Your task to perform on an android device: snooze an email in the gmail app Image 0: 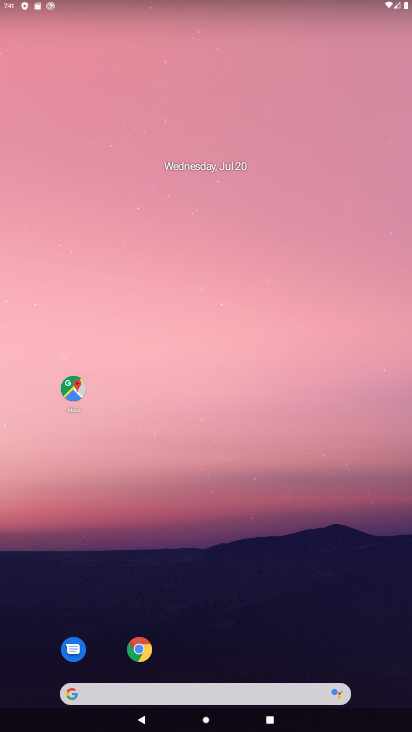
Step 0: drag from (209, 659) to (187, 192)
Your task to perform on an android device: snooze an email in the gmail app Image 1: 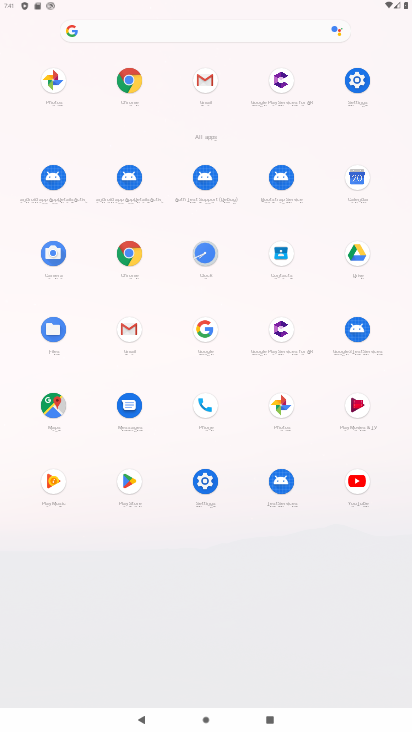
Step 1: click (130, 344)
Your task to perform on an android device: snooze an email in the gmail app Image 2: 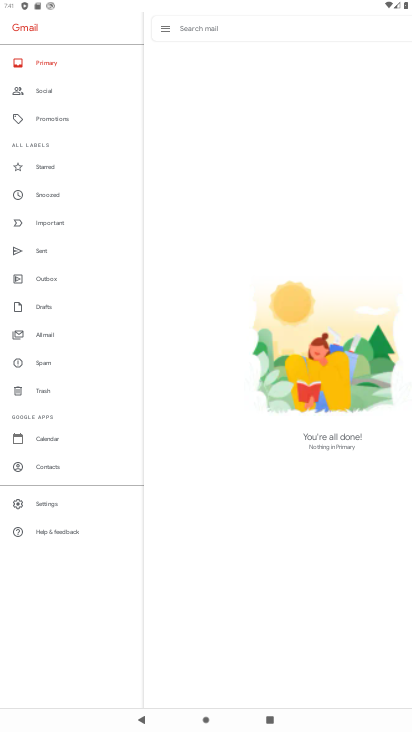
Step 2: click (59, 201)
Your task to perform on an android device: snooze an email in the gmail app Image 3: 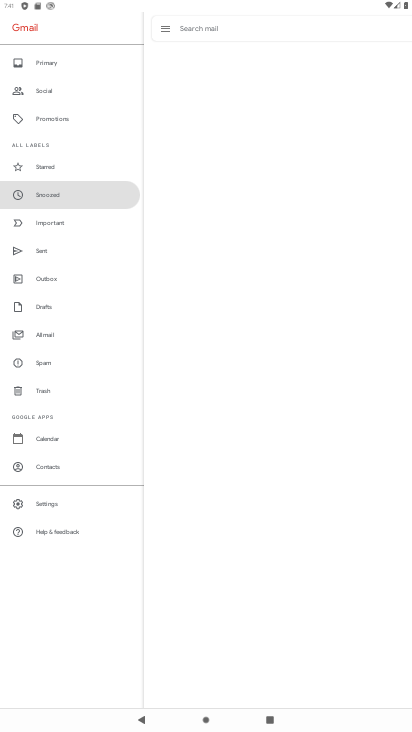
Step 3: task complete